Your task to perform on an android device: What's the weather going to be this weekend? Image 0: 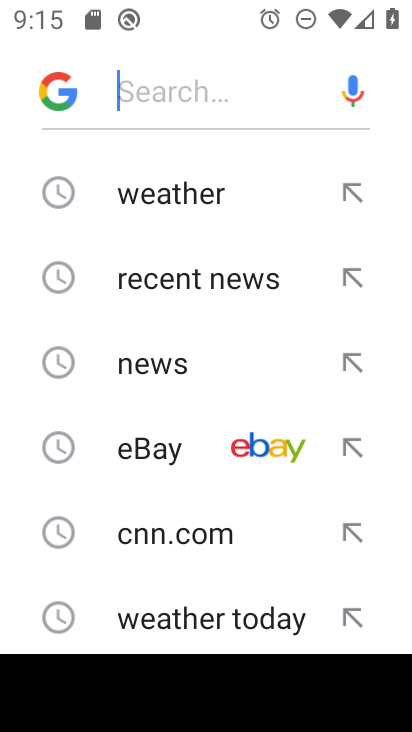
Step 0: press home button
Your task to perform on an android device: What's the weather going to be this weekend? Image 1: 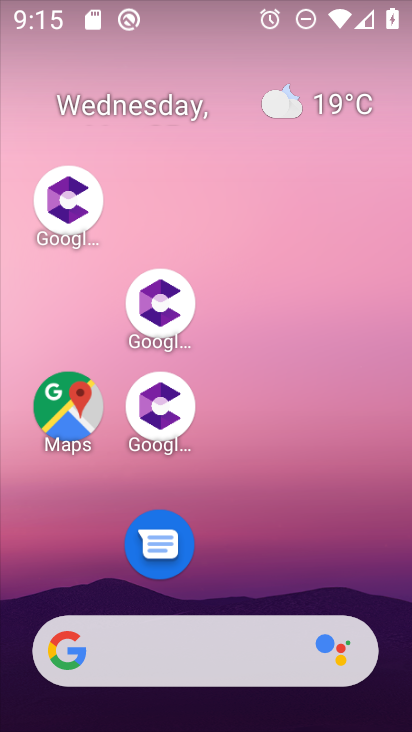
Step 1: click (189, 651)
Your task to perform on an android device: What's the weather going to be this weekend? Image 2: 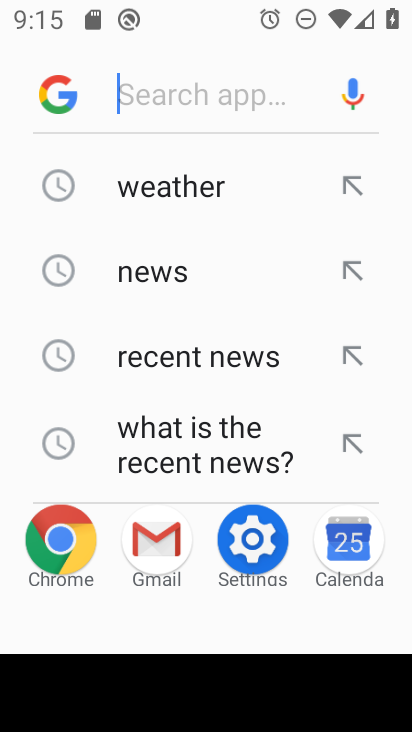
Step 2: click (178, 183)
Your task to perform on an android device: What's the weather going to be this weekend? Image 3: 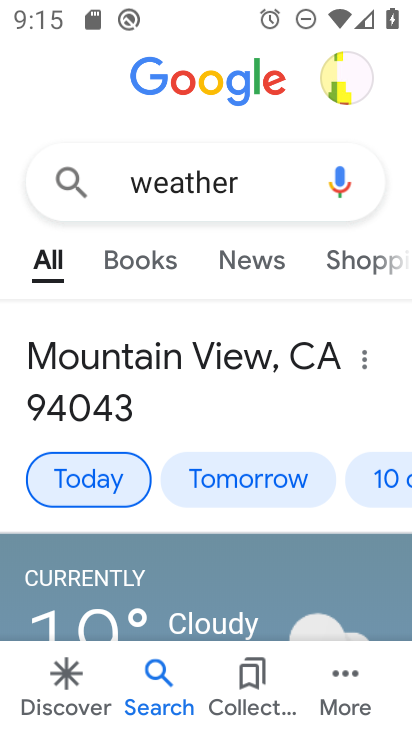
Step 3: click (363, 477)
Your task to perform on an android device: What's the weather going to be this weekend? Image 4: 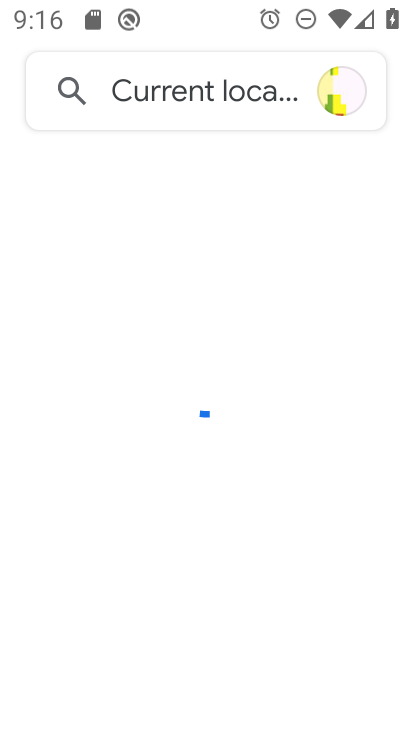
Step 4: drag from (290, 497) to (267, 265)
Your task to perform on an android device: What's the weather going to be this weekend? Image 5: 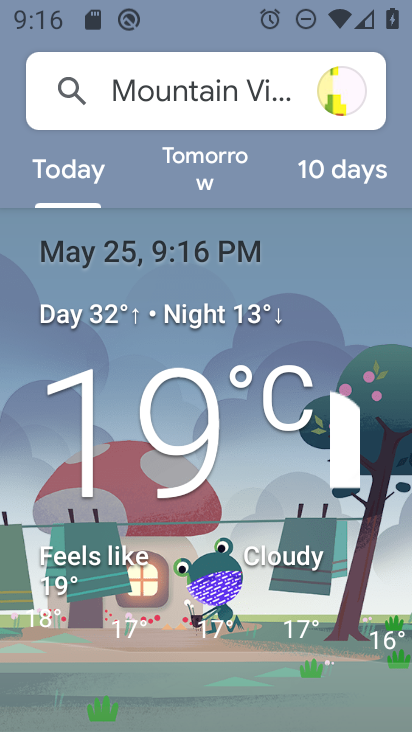
Step 5: drag from (288, 680) to (284, 260)
Your task to perform on an android device: What's the weather going to be this weekend? Image 6: 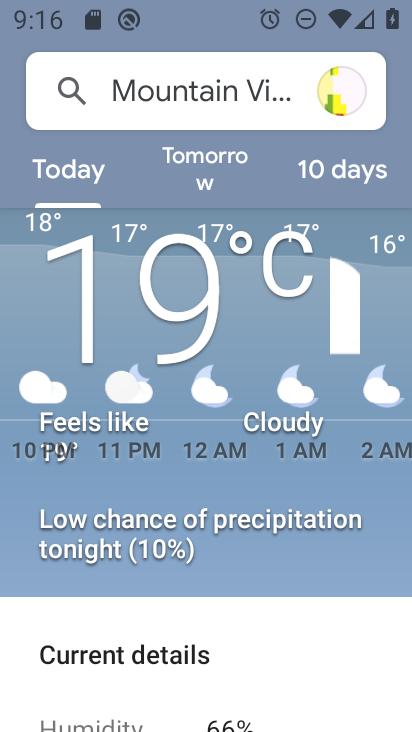
Step 6: click (347, 170)
Your task to perform on an android device: What's the weather going to be this weekend? Image 7: 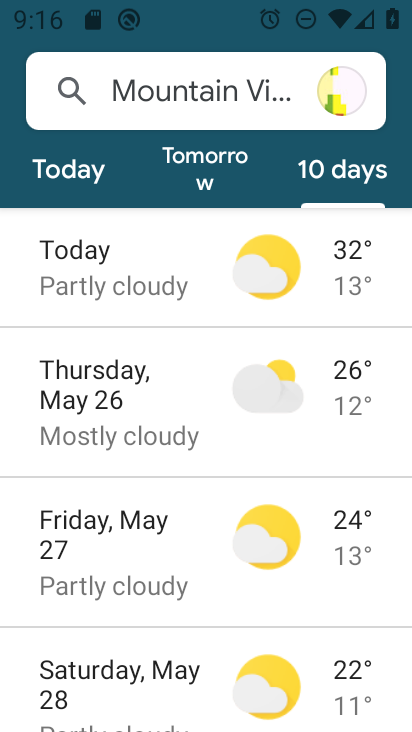
Step 7: task complete